Your task to perform on an android device: change text size in settings app Image 0: 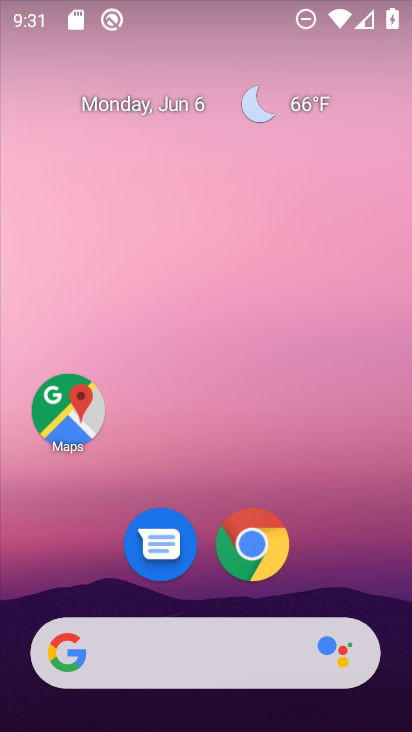
Step 0: drag from (163, 246) to (162, 198)
Your task to perform on an android device: change text size in settings app Image 1: 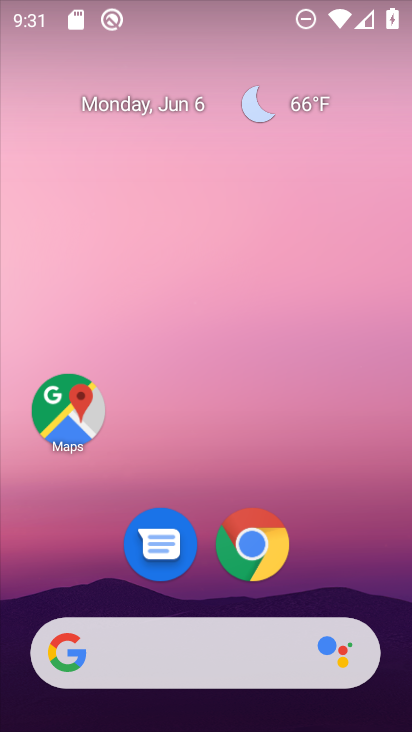
Step 1: drag from (207, 496) to (230, 201)
Your task to perform on an android device: change text size in settings app Image 2: 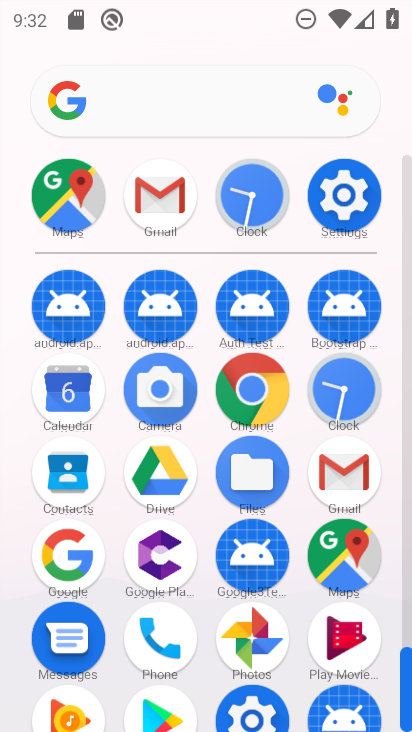
Step 2: click (335, 203)
Your task to perform on an android device: change text size in settings app Image 3: 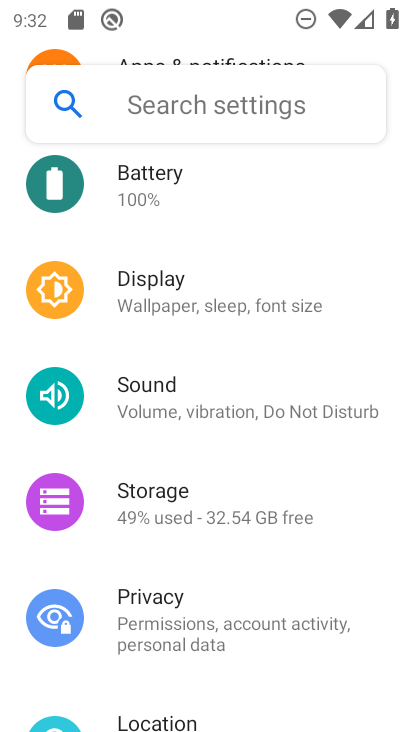
Step 3: click (220, 307)
Your task to perform on an android device: change text size in settings app Image 4: 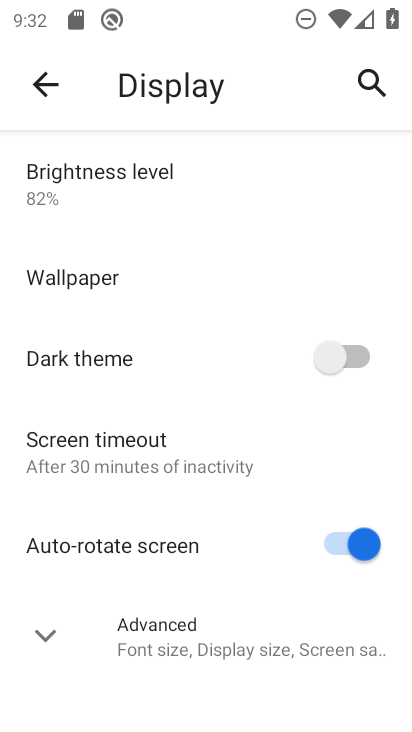
Step 4: click (49, 634)
Your task to perform on an android device: change text size in settings app Image 5: 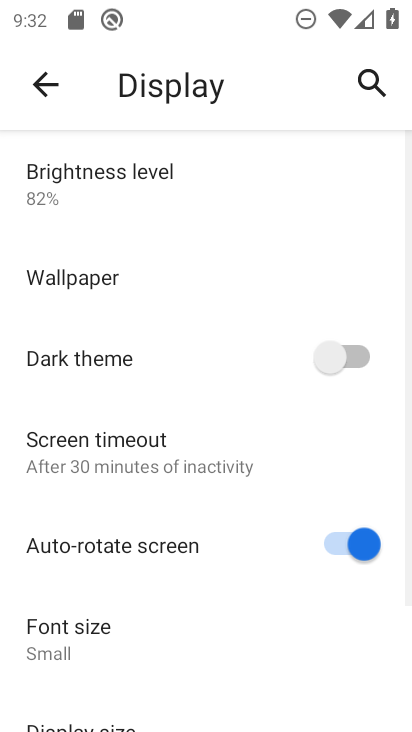
Step 5: drag from (179, 607) to (192, 237)
Your task to perform on an android device: change text size in settings app Image 6: 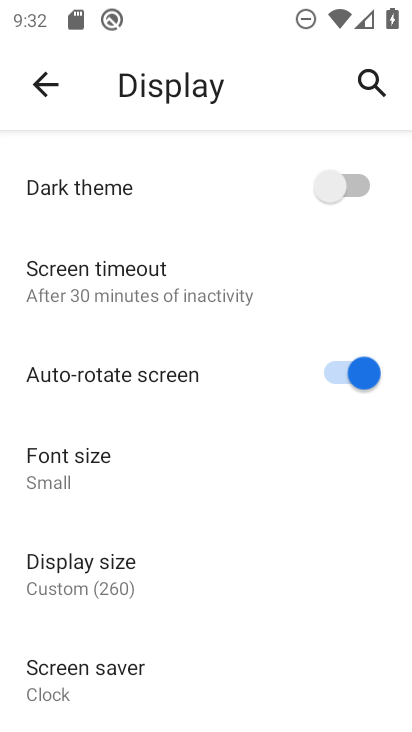
Step 6: click (45, 472)
Your task to perform on an android device: change text size in settings app Image 7: 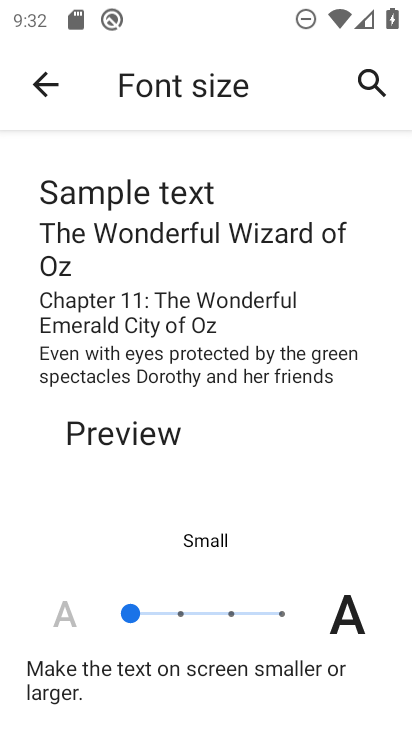
Step 7: click (179, 608)
Your task to perform on an android device: change text size in settings app Image 8: 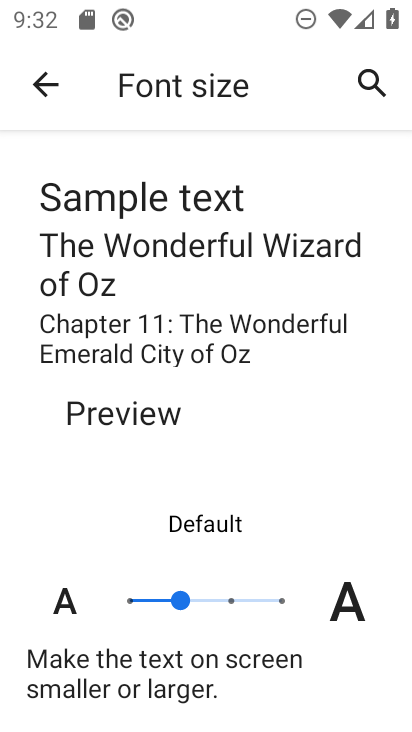
Step 8: task complete